Your task to perform on an android device: turn off wifi Image 0: 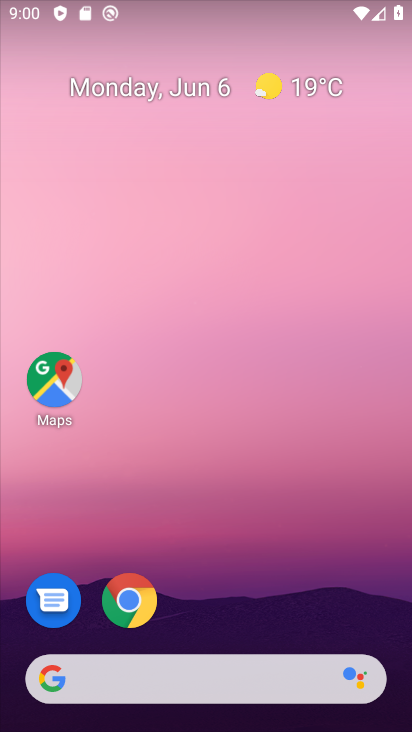
Step 0: drag from (350, 543) to (215, 7)
Your task to perform on an android device: turn off wifi Image 1: 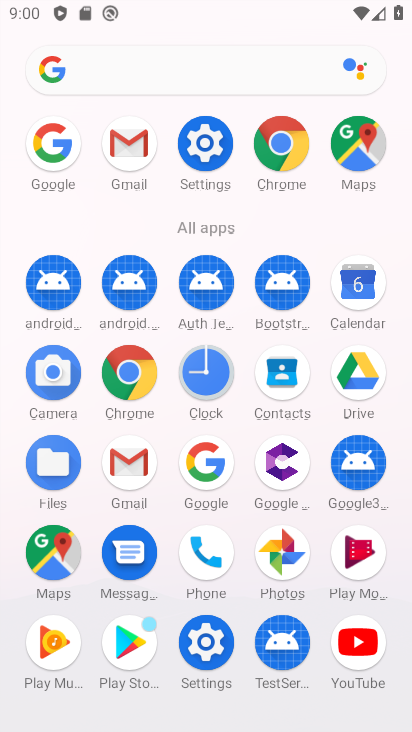
Step 1: click (219, 154)
Your task to perform on an android device: turn off wifi Image 2: 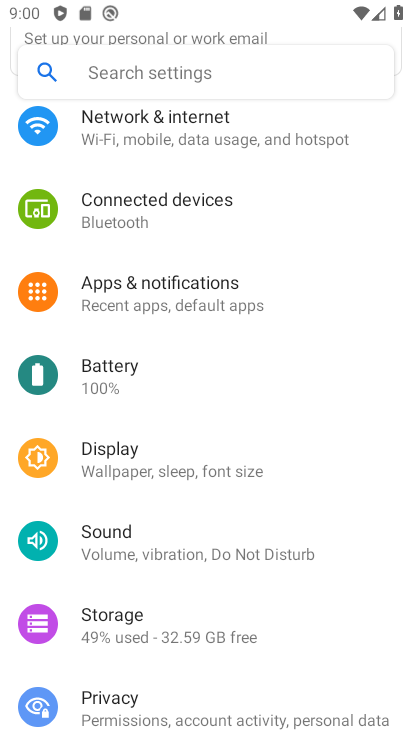
Step 2: click (271, 145)
Your task to perform on an android device: turn off wifi Image 3: 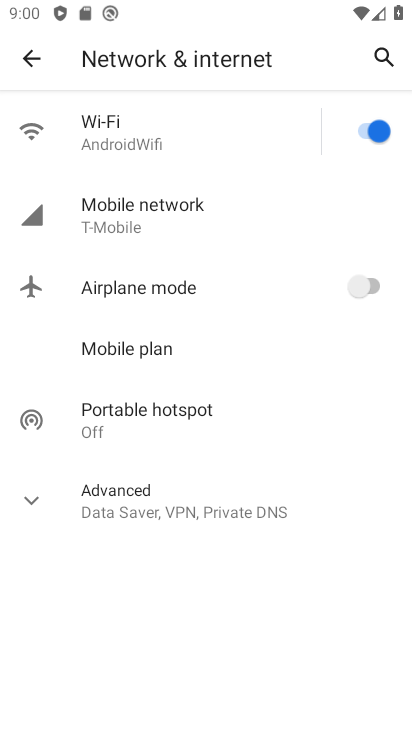
Step 3: click (367, 137)
Your task to perform on an android device: turn off wifi Image 4: 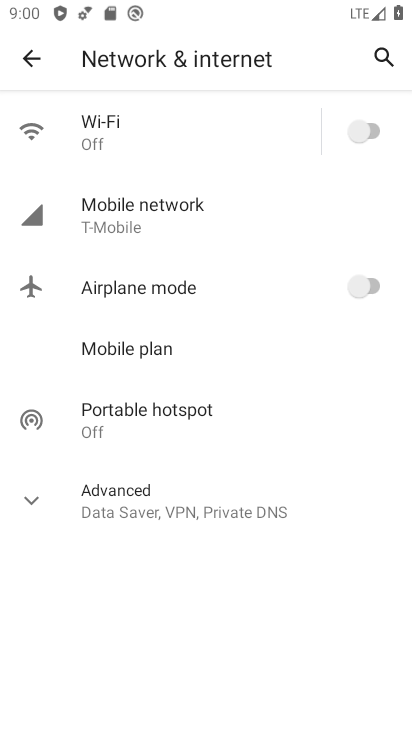
Step 4: task complete